Your task to perform on an android device: Add "duracell triple a" to the cart on target, then select checkout. Image 0: 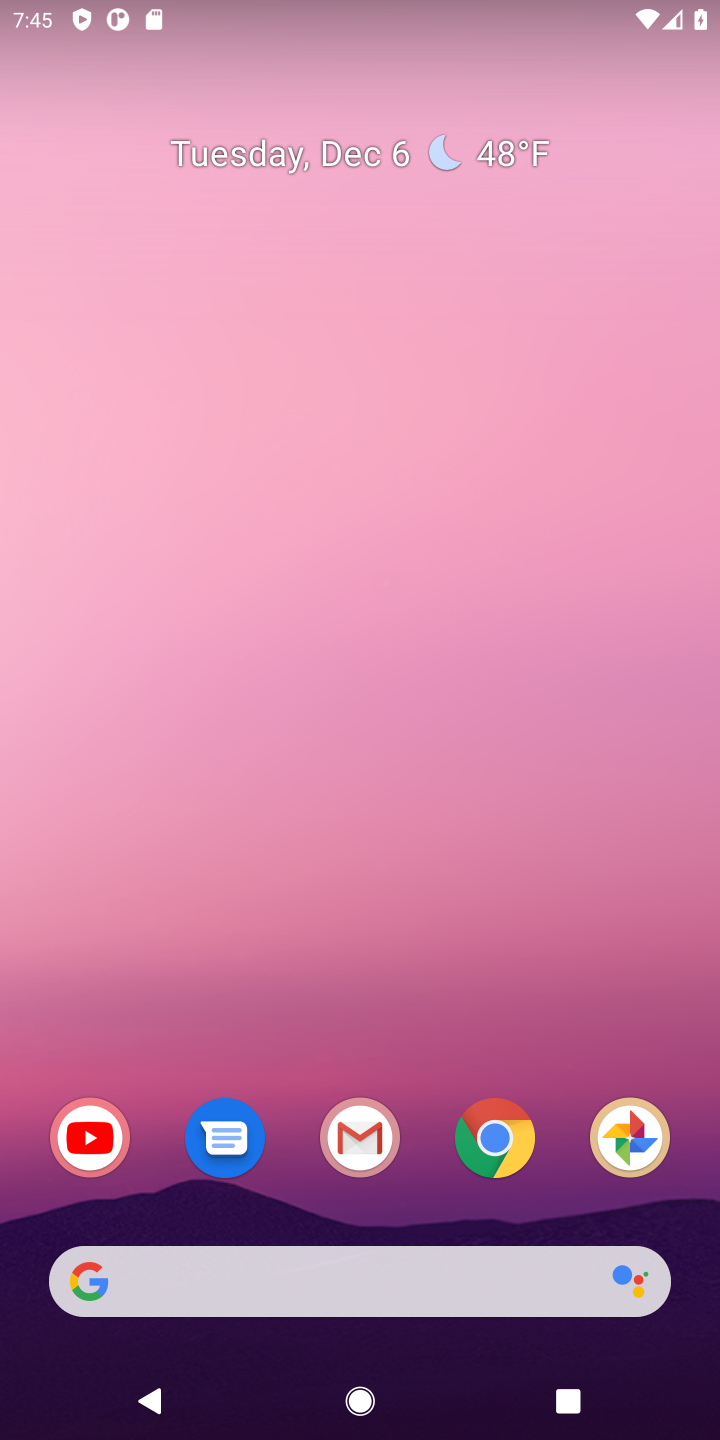
Step 0: click (501, 1148)
Your task to perform on an android device: Add "duracell triple a" to the cart on target, then select checkout. Image 1: 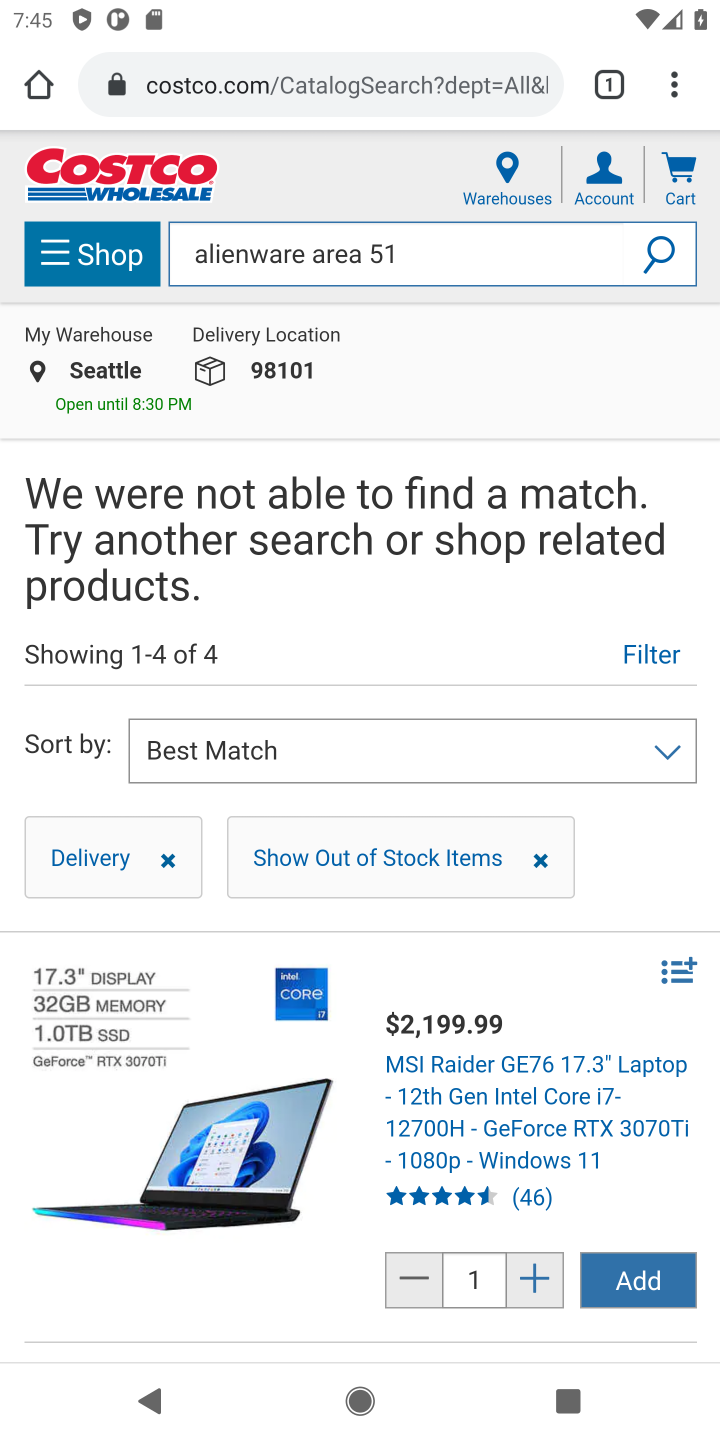
Step 1: click (335, 96)
Your task to perform on an android device: Add "duracell triple a" to the cart on target, then select checkout. Image 2: 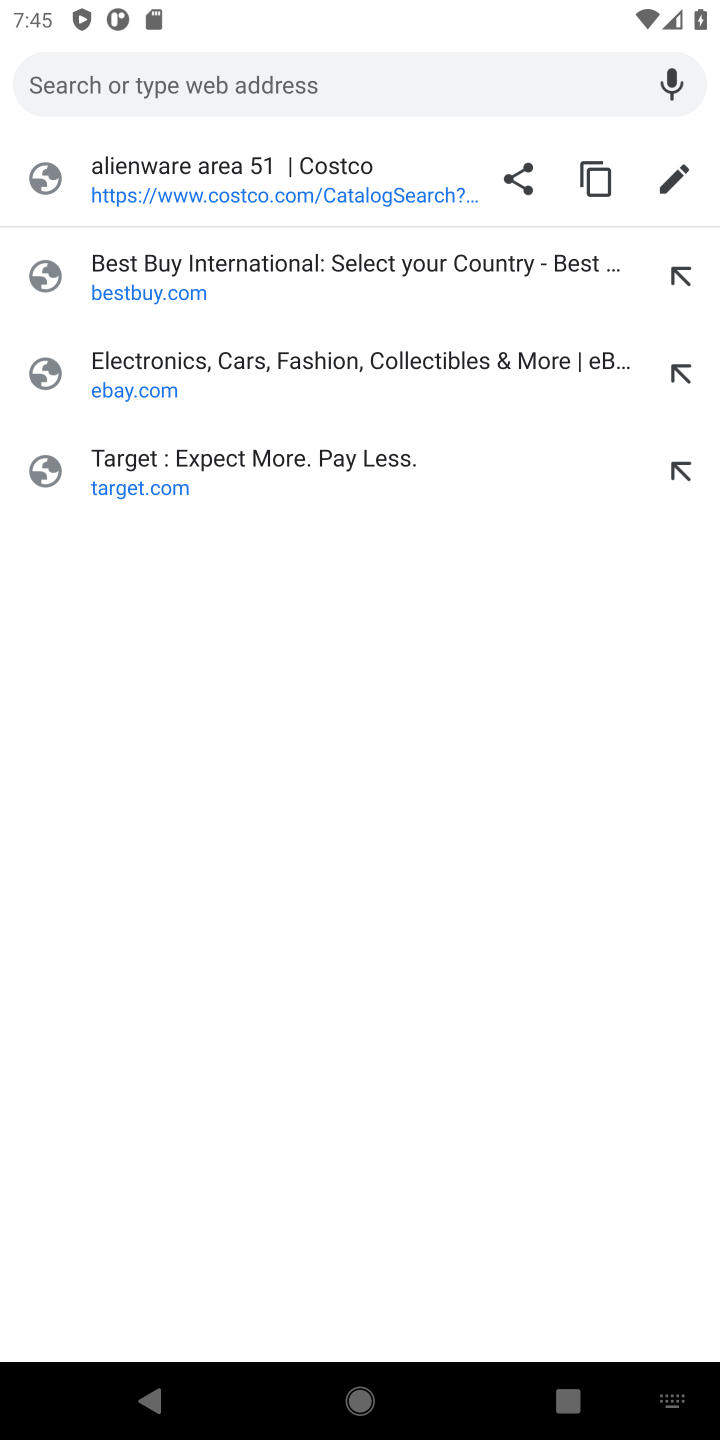
Step 2: type "target.com"
Your task to perform on an android device: Add "duracell triple a" to the cart on target, then select checkout. Image 3: 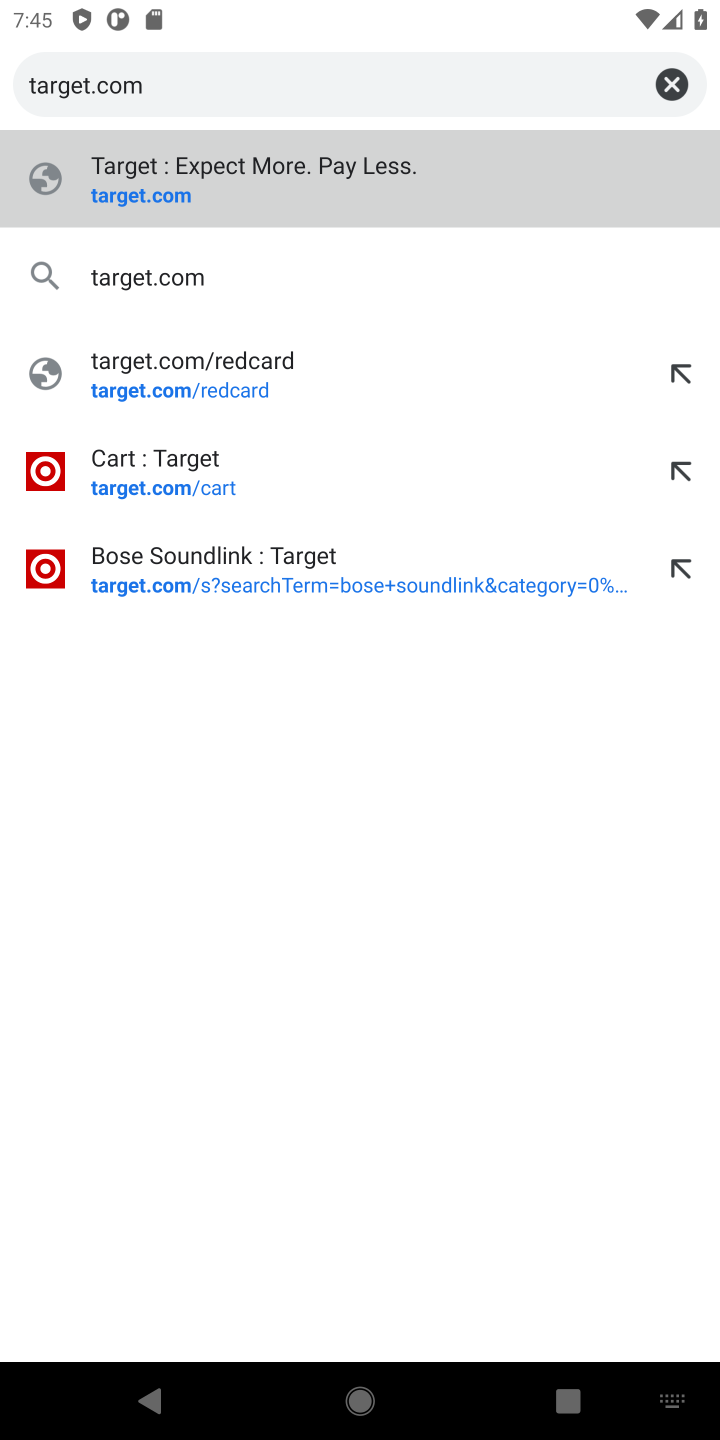
Step 3: click (185, 77)
Your task to perform on an android device: Add "duracell triple a" to the cart on target, then select checkout. Image 4: 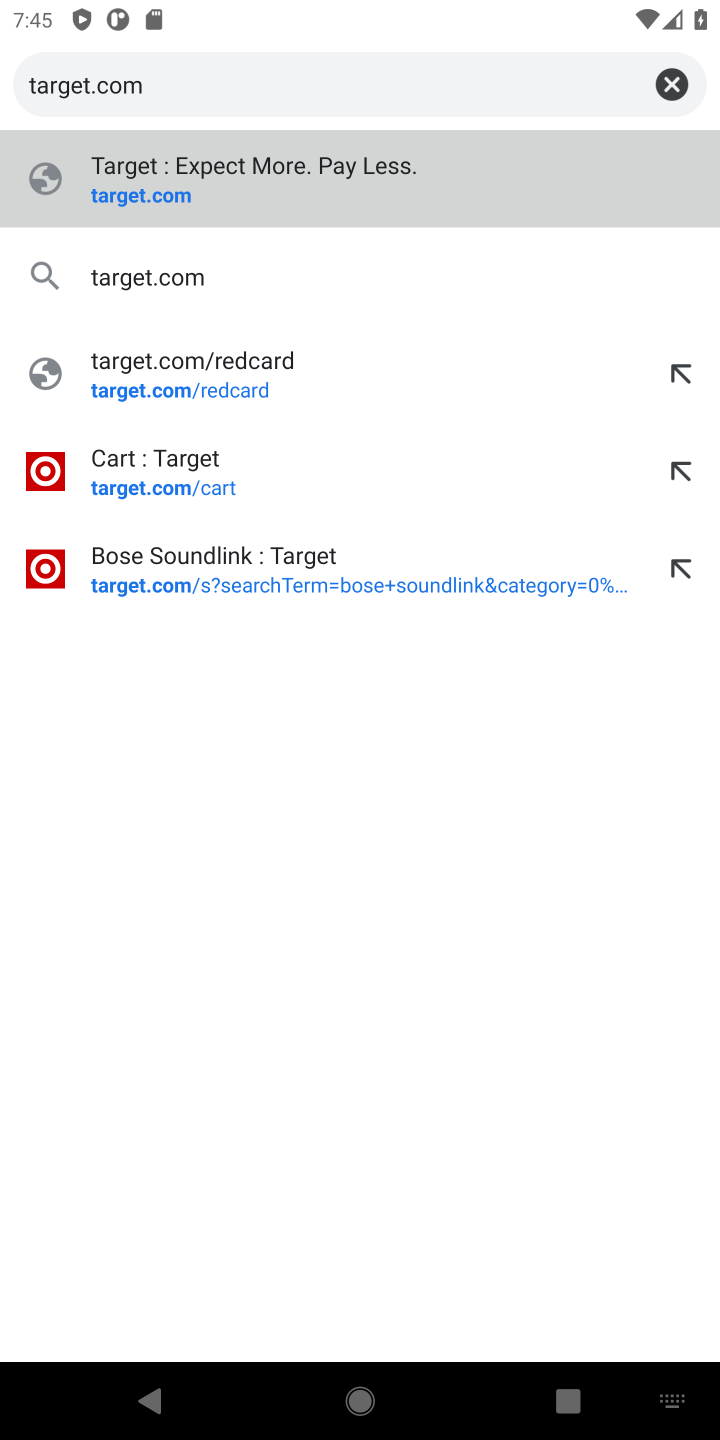
Step 4: click (116, 173)
Your task to perform on an android device: Add "duracell triple a" to the cart on target, then select checkout. Image 5: 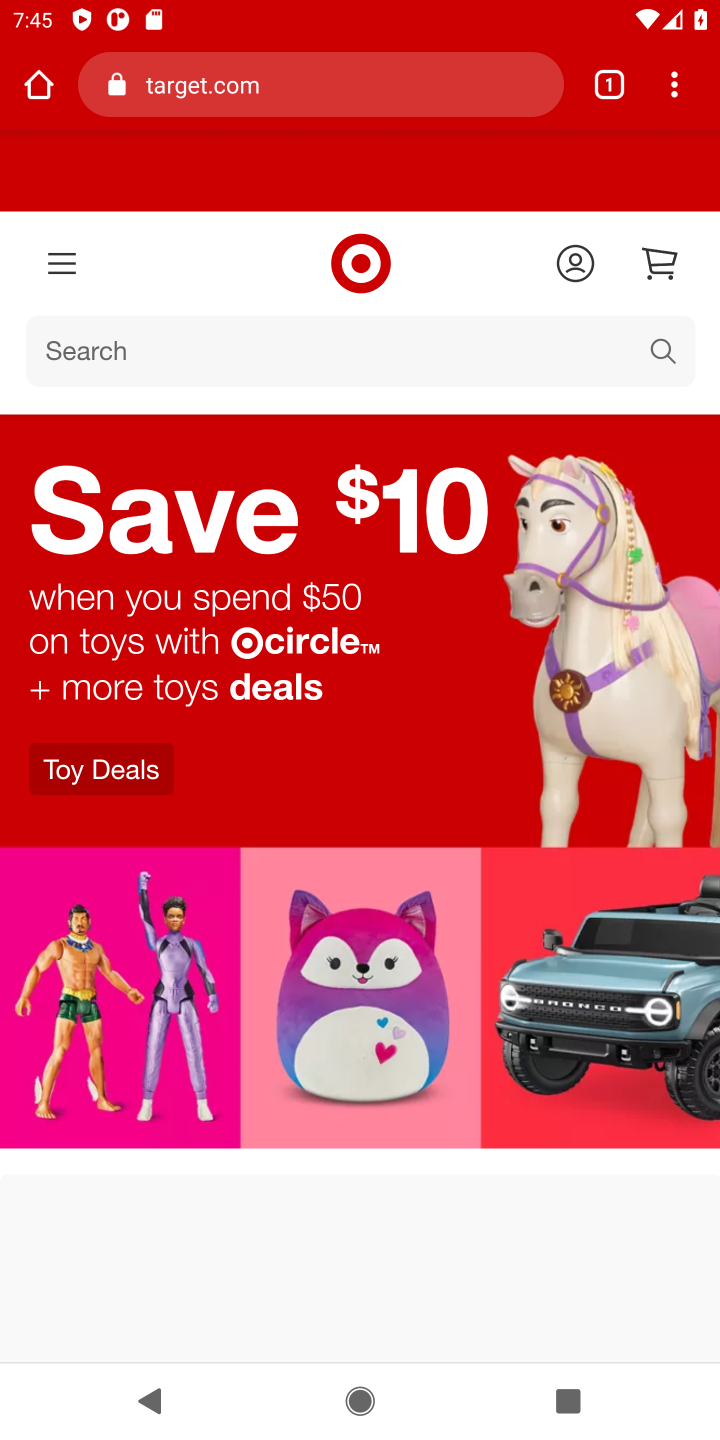
Step 5: click (101, 362)
Your task to perform on an android device: Add "duracell triple a" to the cart on target, then select checkout. Image 6: 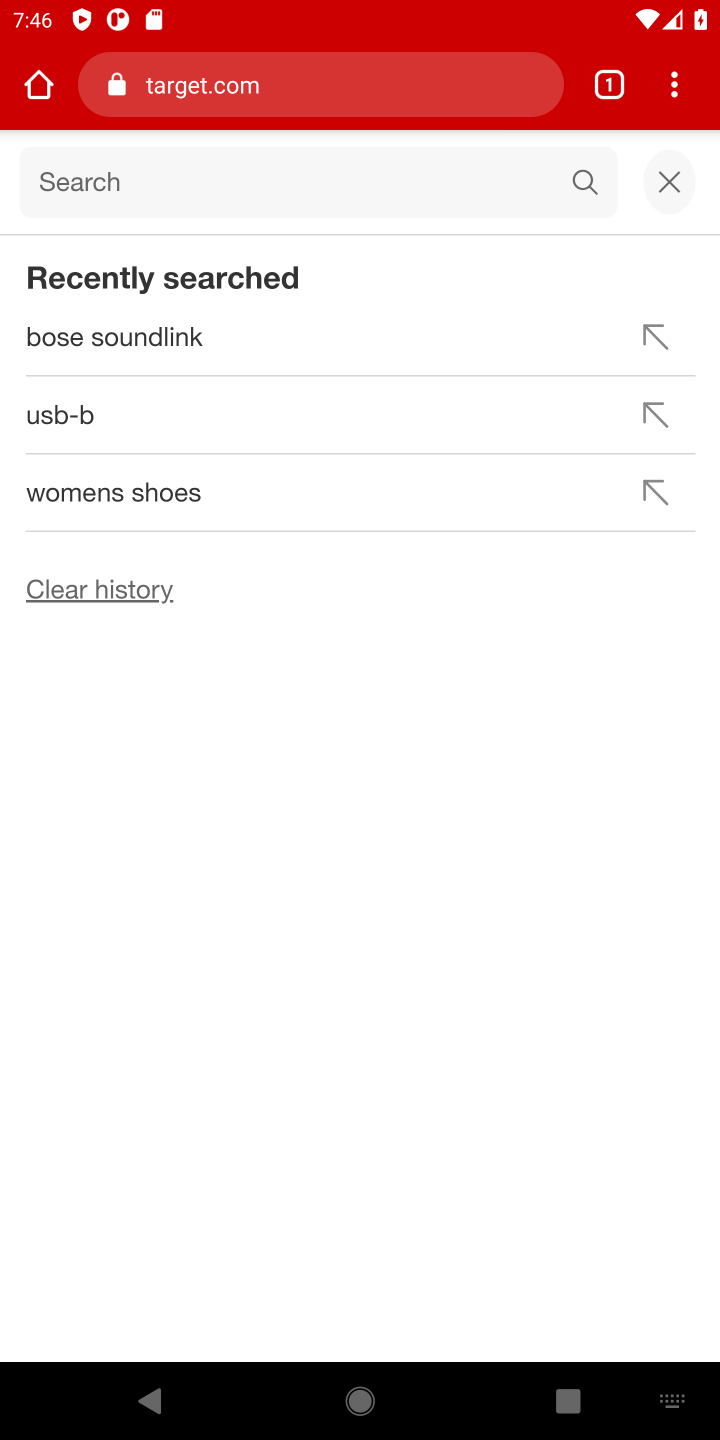
Step 6: type "duracell triple a"
Your task to perform on an android device: Add "duracell triple a" to the cart on target, then select checkout. Image 7: 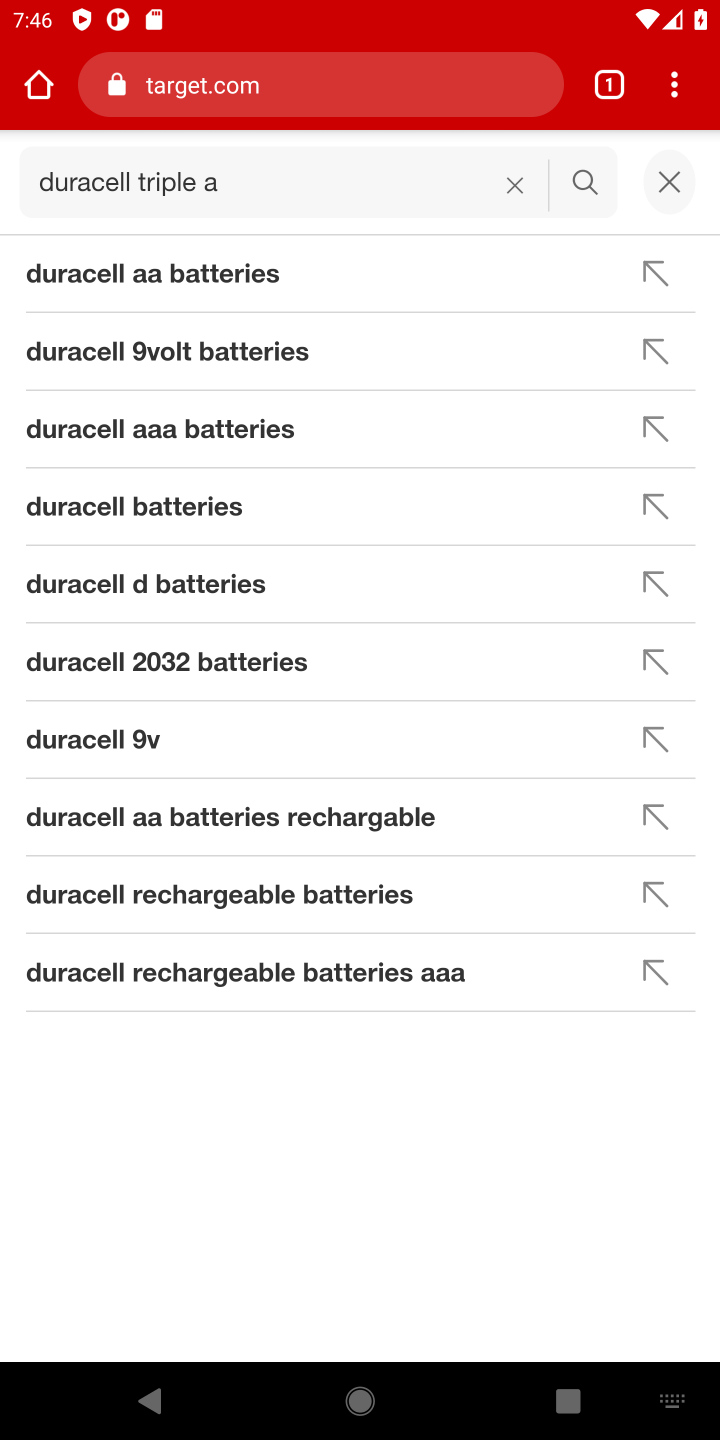
Step 7: click (589, 185)
Your task to perform on an android device: Add "duracell triple a" to the cart on target, then select checkout. Image 8: 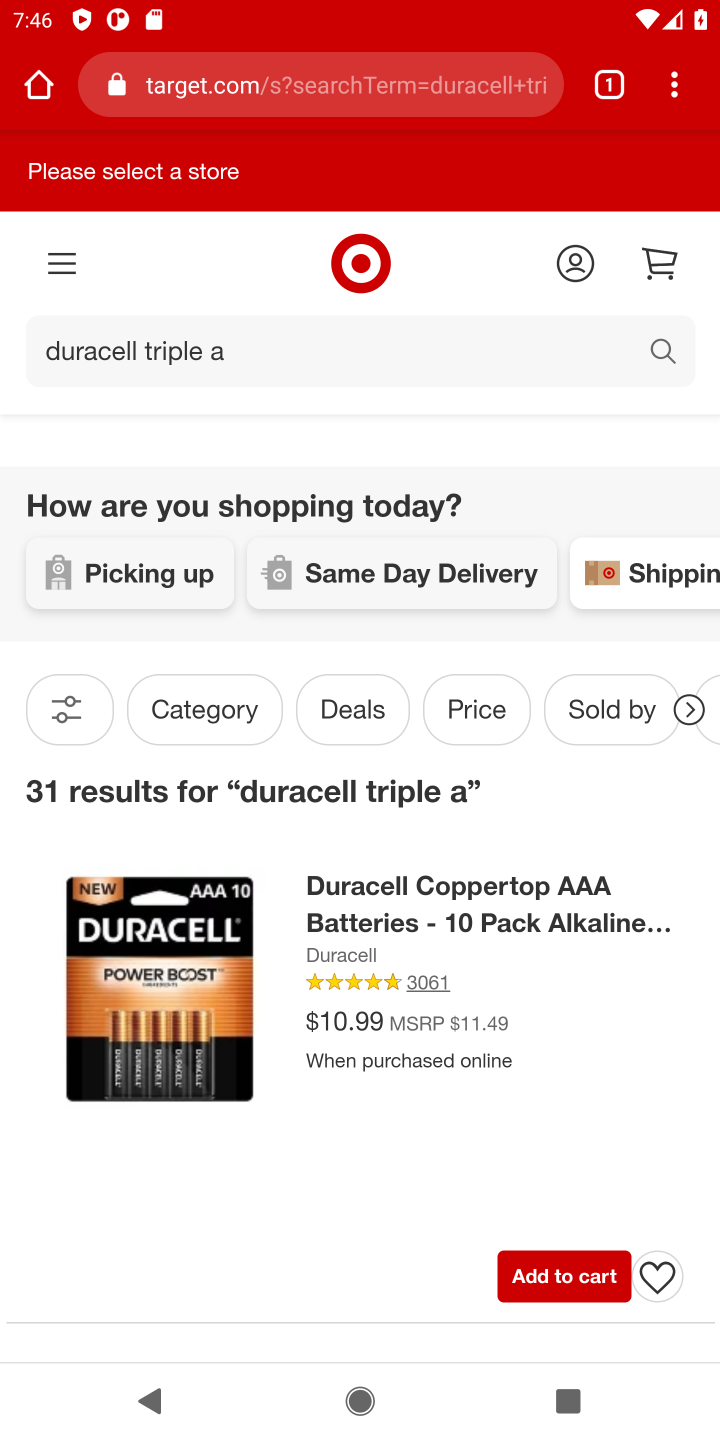
Step 8: click (538, 1286)
Your task to perform on an android device: Add "duracell triple a" to the cart on target, then select checkout. Image 9: 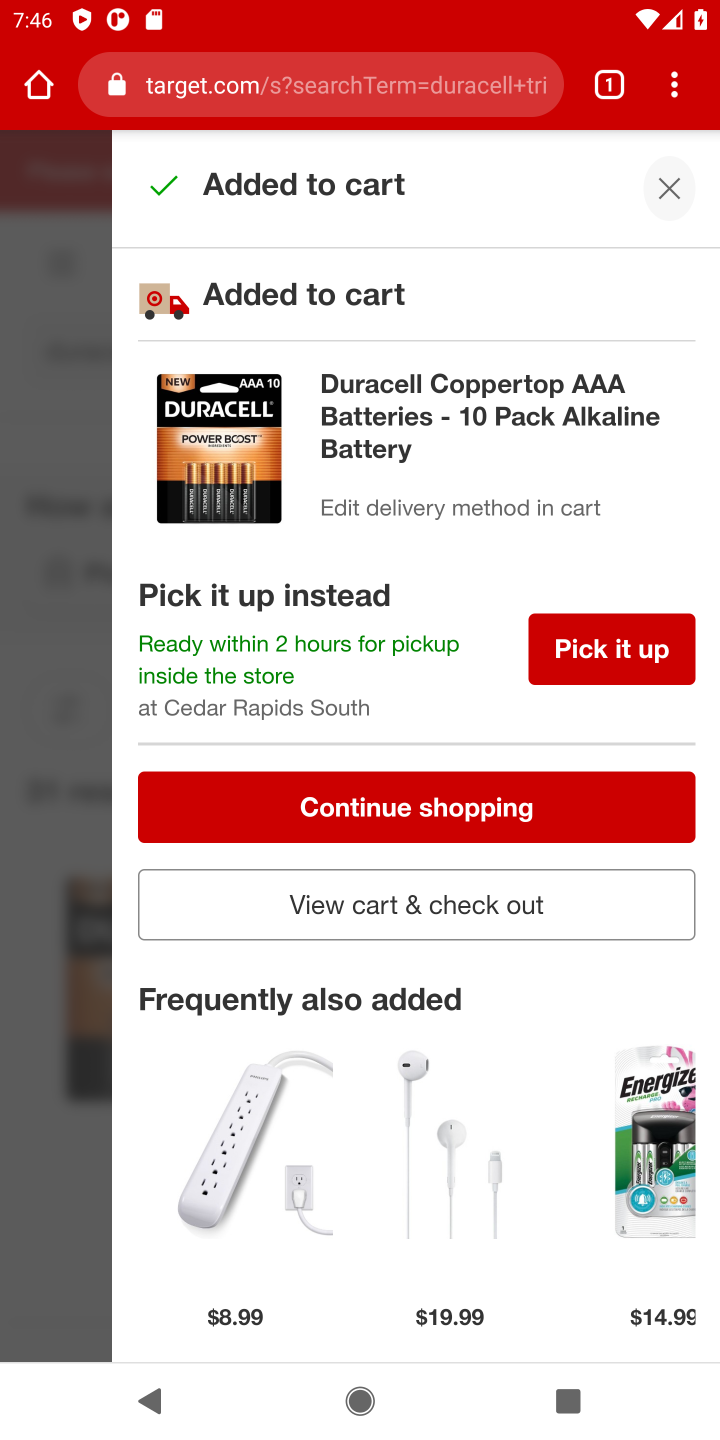
Step 9: click (402, 895)
Your task to perform on an android device: Add "duracell triple a" to the cart on target, then select checkout. Image 10: 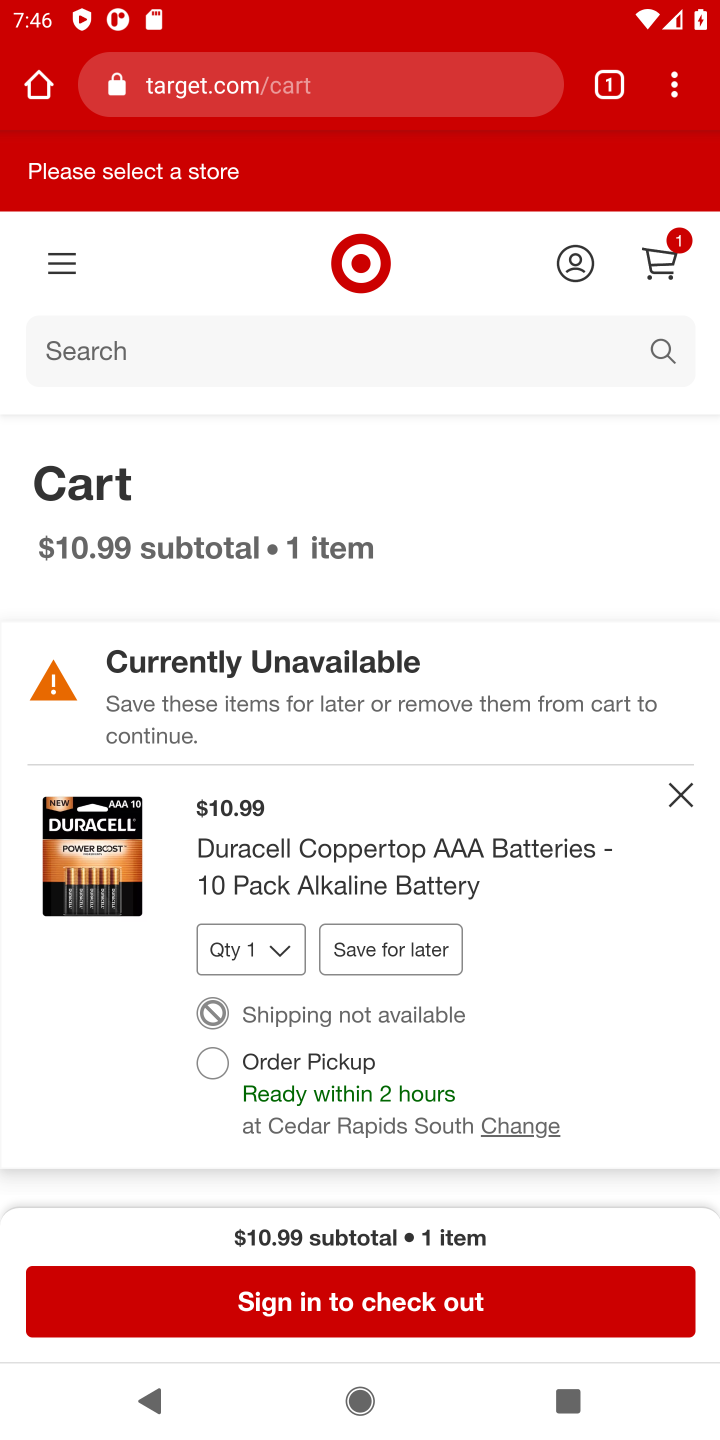
Step 10: click (367, 1308)
Your task to perform on an android device: Add "duracell triple a" to the cart on target, then select checkout. Image 11: 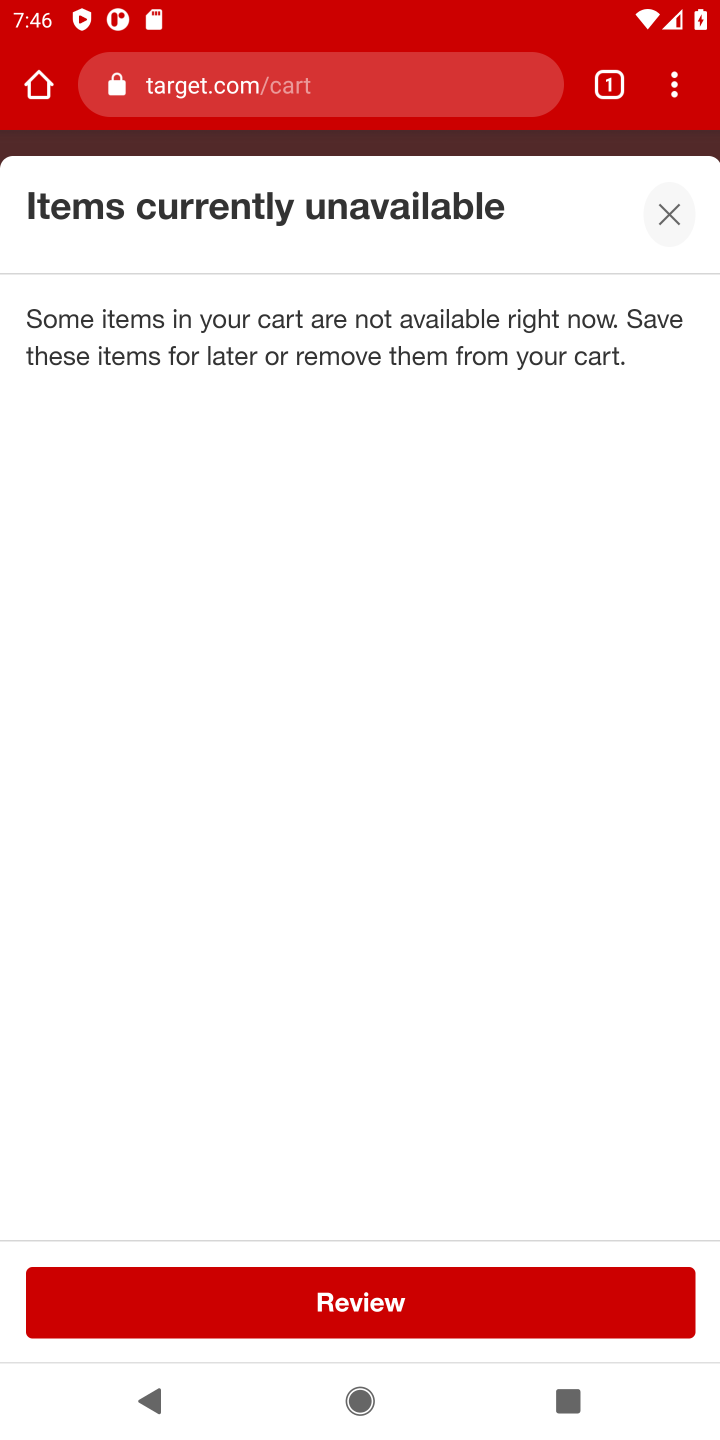
Step 11: task complete